Your task to perform on an android device: change the upload size in google photos Image 0: 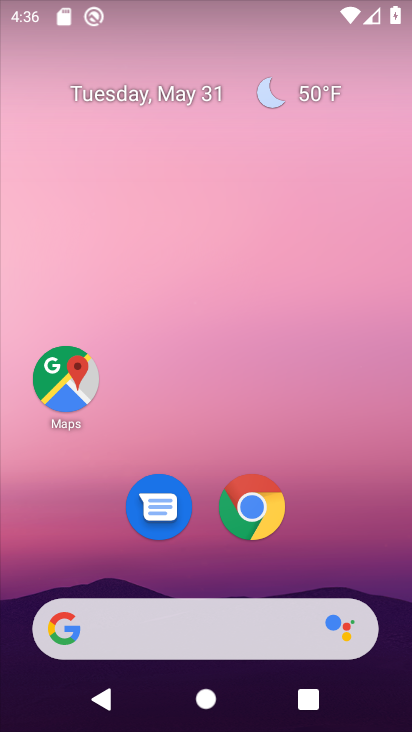
Step 0: drag from (222, 453) to (244, 9)
Your task to perform on an android device: change the upload size in google photos Image 1: 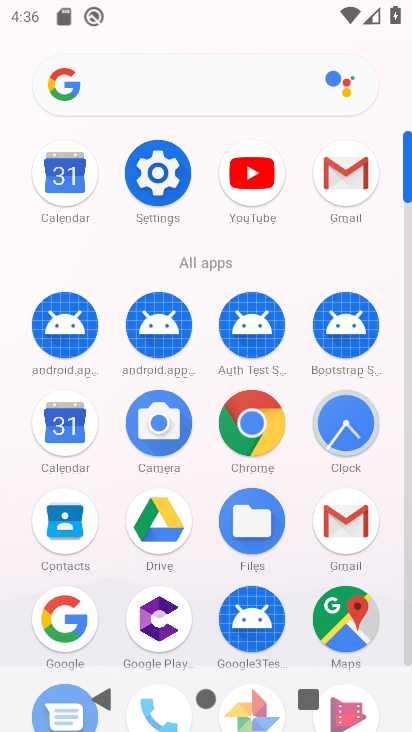
Step 1: drag from (204, 466) to (213, 143)
Your task to perform on an android device: change the upload size in google photos Image 2: 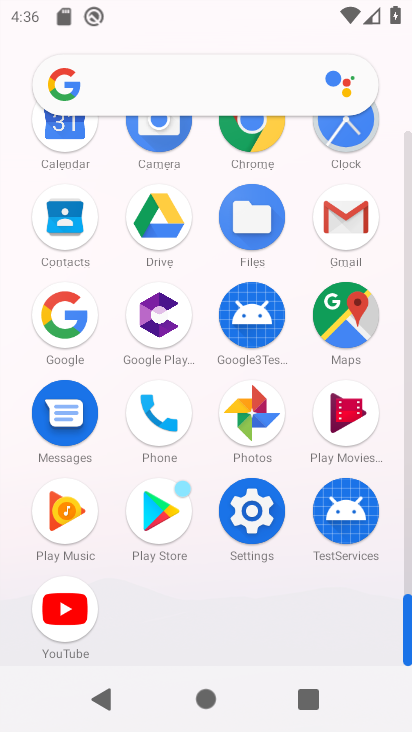
Step 2: click (249, 421)
Your task to perform on an android device: change the upload size in google photos Image 3: 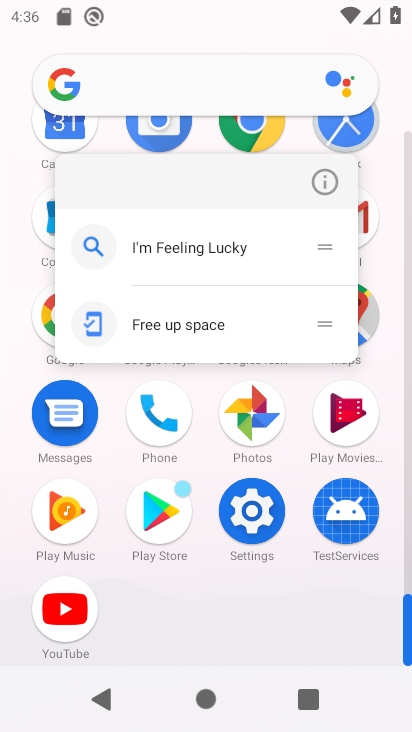
Step 3: click (246, 413)
Your task to perform on an android device: change the upload size in google photos Image 4: 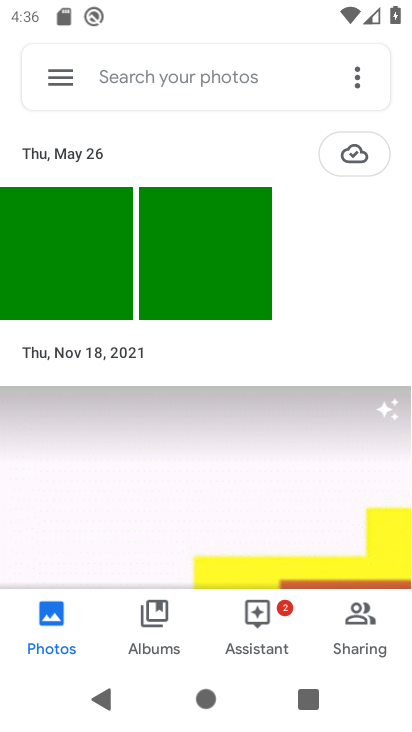
Step 4: click (56, 76)
Your task to perform on an android device: change the upload size in google photos Image 5: 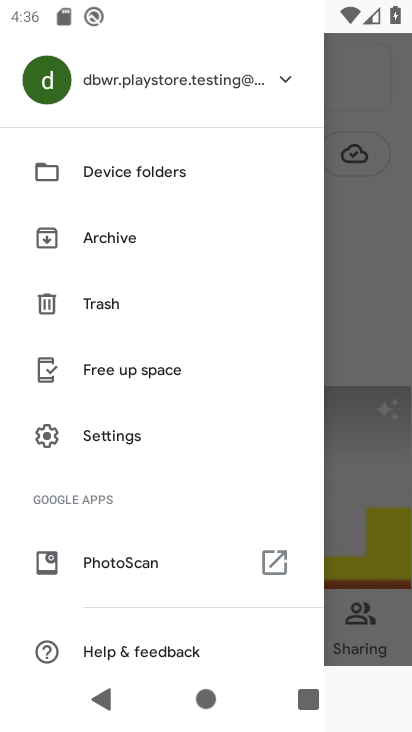
Step 5: click (112, 425)
Your task to perform on an android device: change the upload size in google photos Image 6: 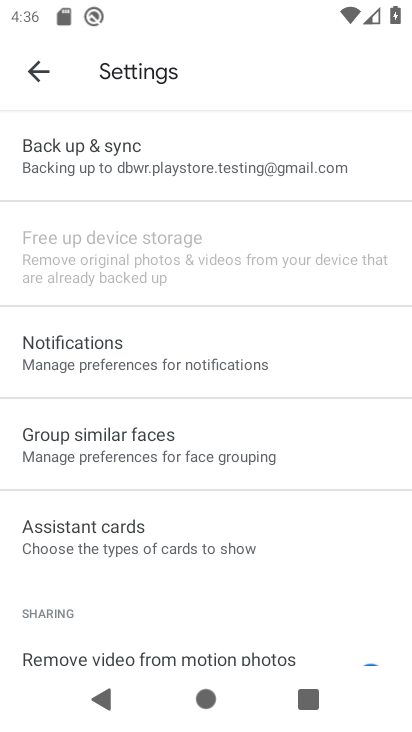
Step 6: click (124, 146)
Your task to perform on an android device: change the upload size in google photos Image 7: 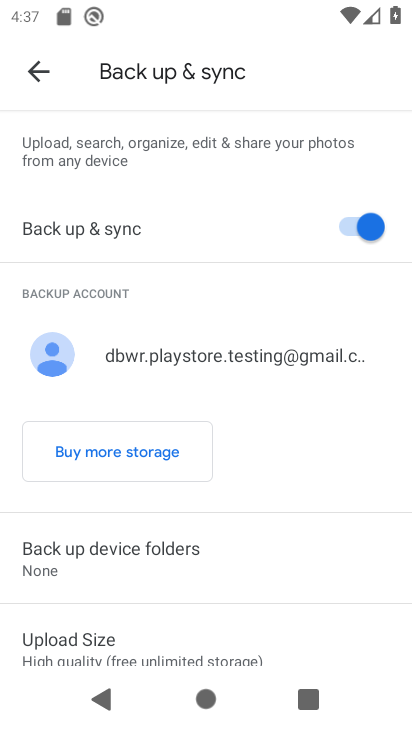
Step 7: drag from (167, 608) to (173, 424)
Your task to perform on an android device: change the upload size in google photos Image 8: 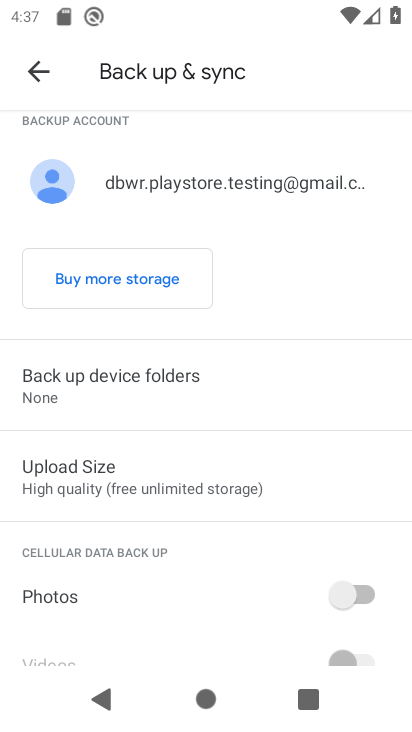
Step 8: click (169, 481)
Your task to perform on an android device: change the upload size in google photos Image 9: 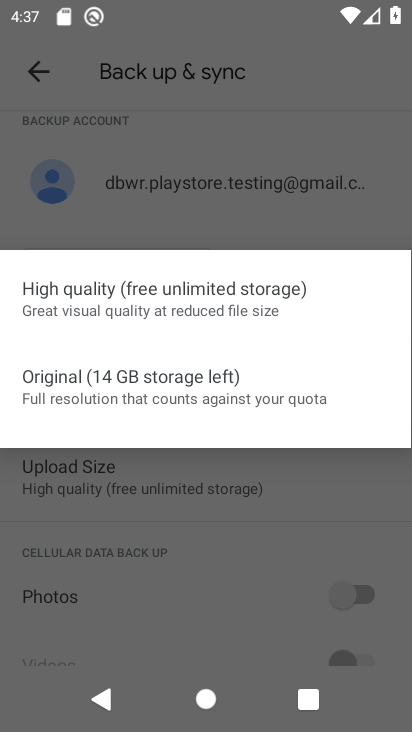
Step 9: click (213, 376)
Your task to perform on an android device: change the upload size in google photos Image 10: 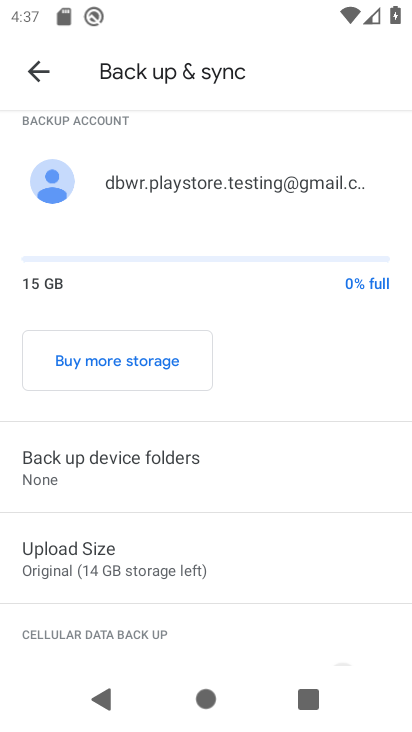
Step 10: task complete